Your task to perform on an android device: Go to eBay Image 0: 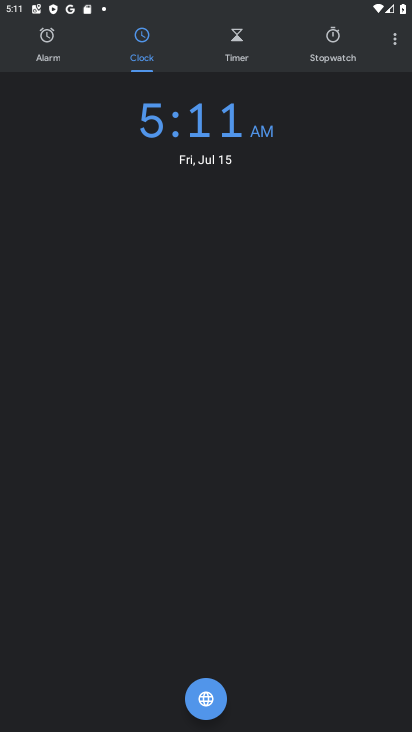
Step 0: task complete